Your task to perform on an android device: What's the weather? Image 0: 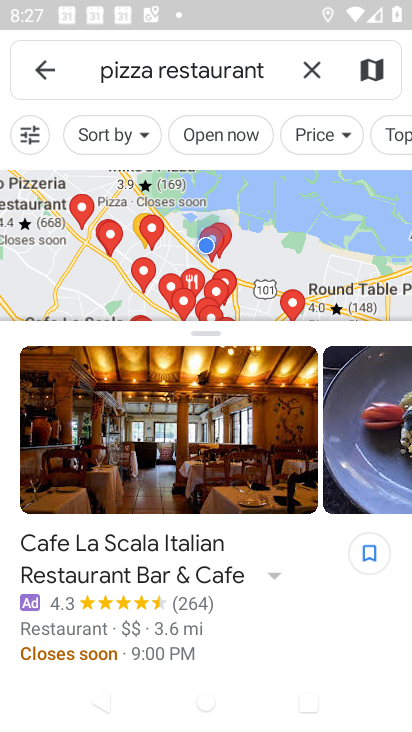
Step 0: press home button
Your task to perform on an android device: What's the weather? Image 1: 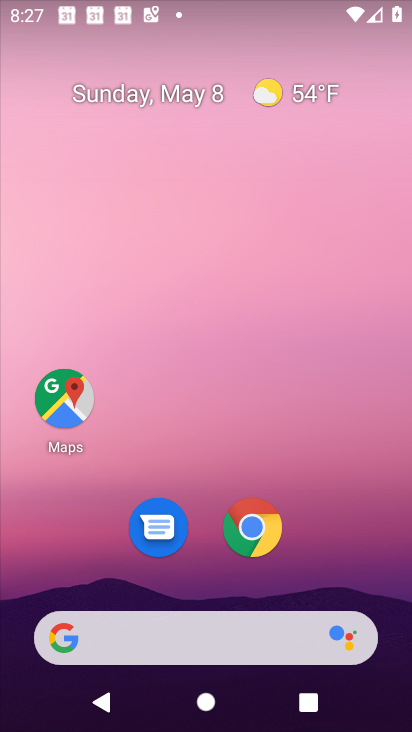
Step 1: drag from (334, 556) to (301, 28)
Your task to perform on an android device: What's the weather? Image 2: 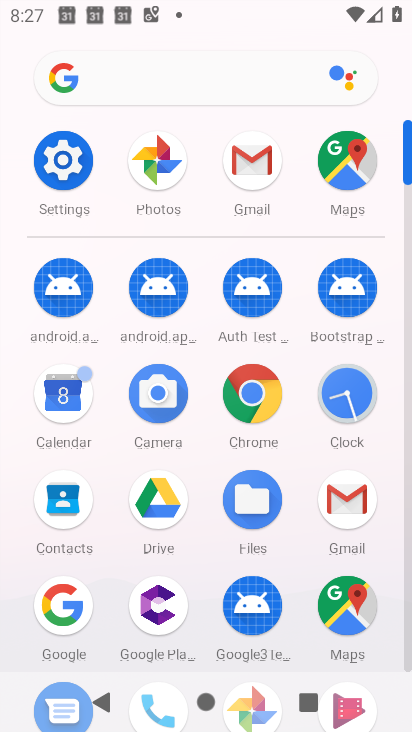
Step 2: click (139, 86)
Your task to perform on an android device: What's the weather? Image 3: 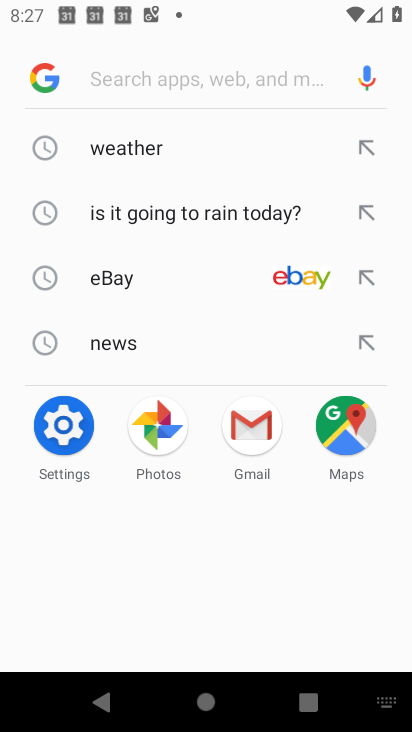
Step 3: type "what's the weather"
Your task to perform on an android device: What's the weather? Image 4: 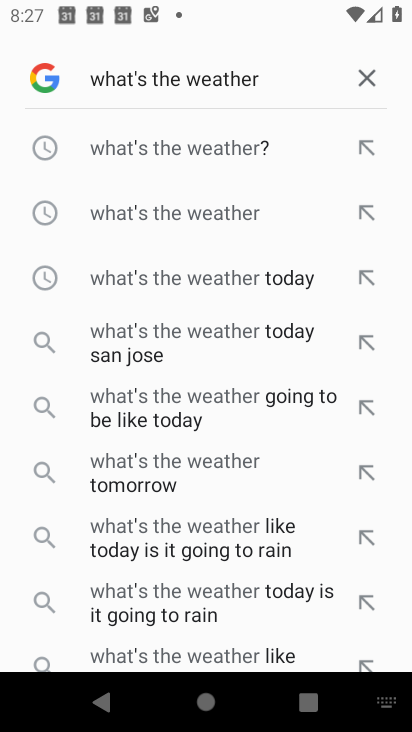
Step 4: click (229, 151)
Your task to perform on an android device: What's the weather? Image 5: 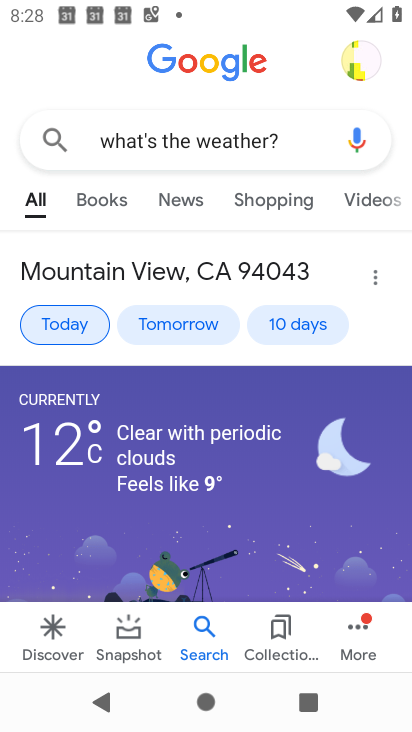
Step 5: task complete